Your task to perform on an android device: change notifications settings Image 0: 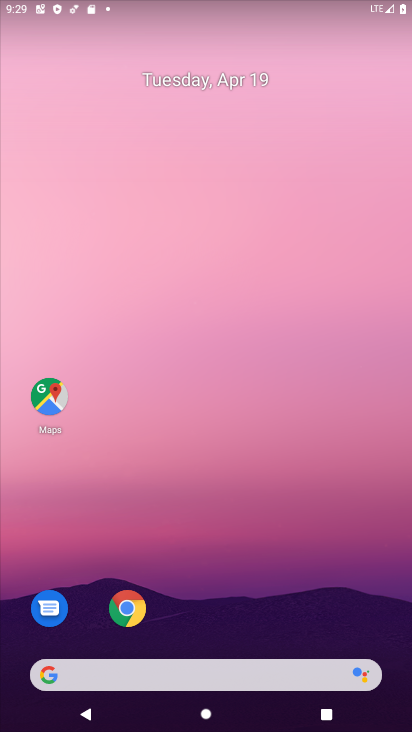
Step 0: drag from (363, 628) to (284, 98)
Your task to perform on an android device: change notifications settings Image 1: 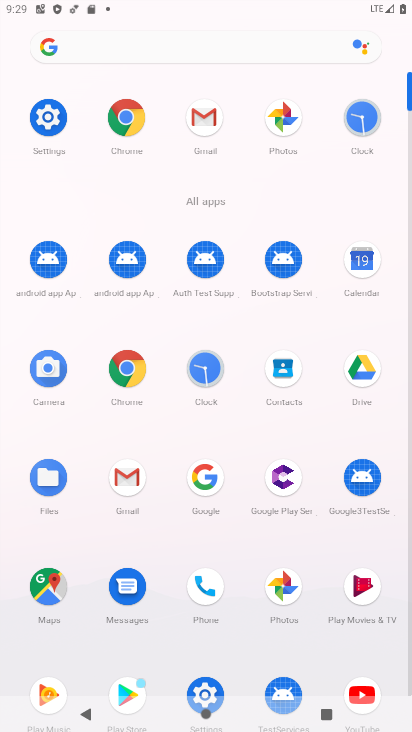
Step 1: click (409, 675)
Your task to perform on an android device: change notifications settings Image 2: 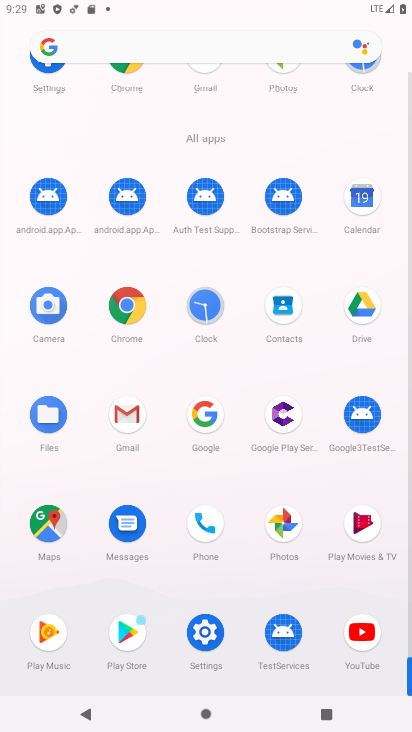
Step 2: click (204, 630)
Your task to perform on an android device: change notifications settings Image 3: 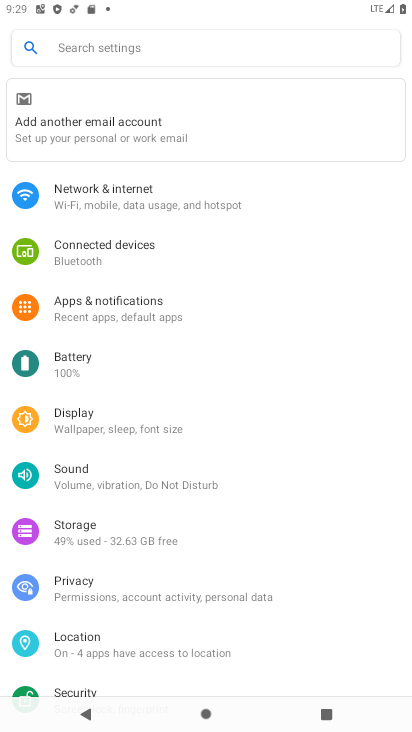
Step 3: click (108, 303)
Your task to perform on an android device: change notifications settings Image 4: 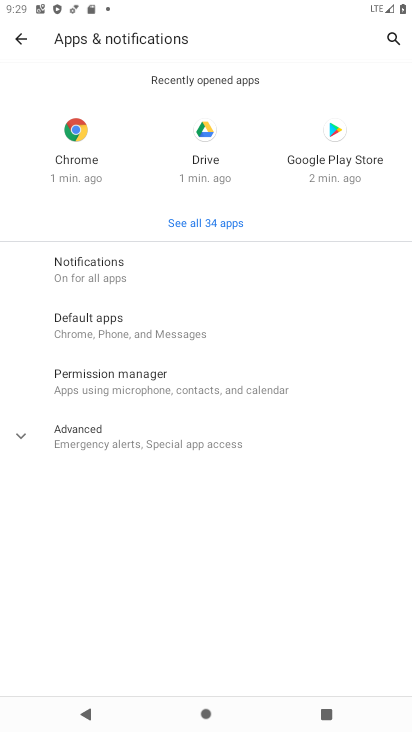
Step 4: click (95, 268)
Your task to perform on an android device: change notifications settings Image 5: 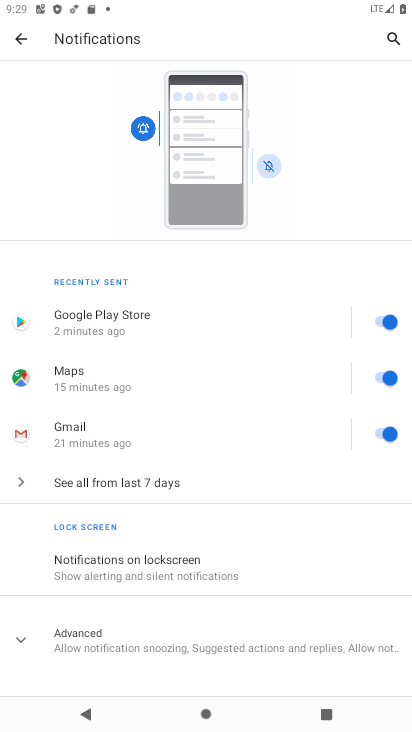
Step 5: drag from (251, 596) to (243, 245)
Your task to perform on an android device: change notifications settings Image 6: 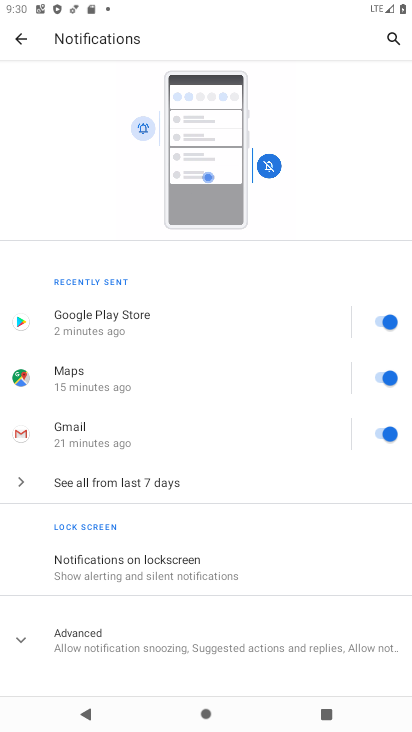
Step 6: click (13, 636)
Your task to perform on an android device: change notifications settings Image 7: 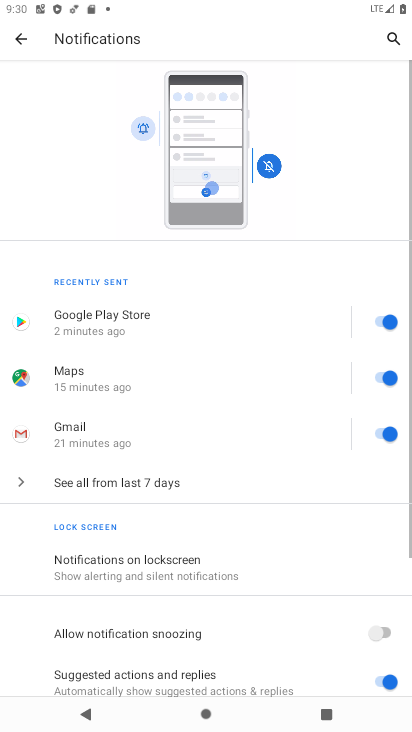
Step 7: task complete